Your task to perform on an android device: Open the map Image 0: 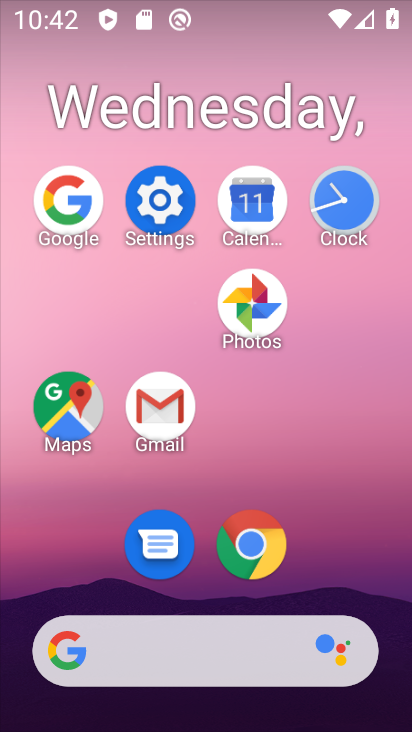
Step 0: click (61, 403)
Your task to perform on an android device: Open the map Image 1: 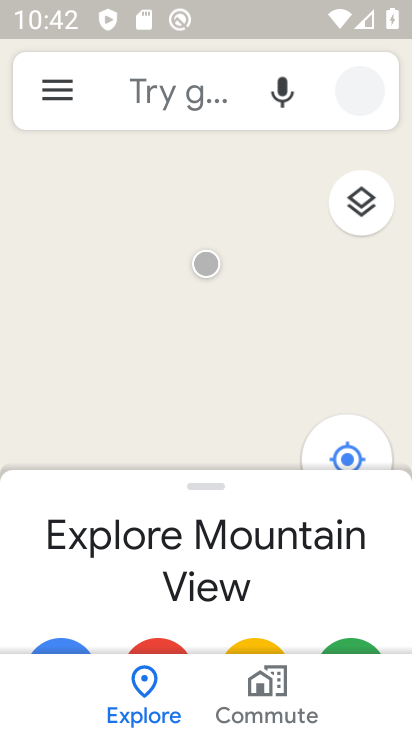
Step 1: task complete